Your task to perform on an android device: Turn off the flashlight Image 0: 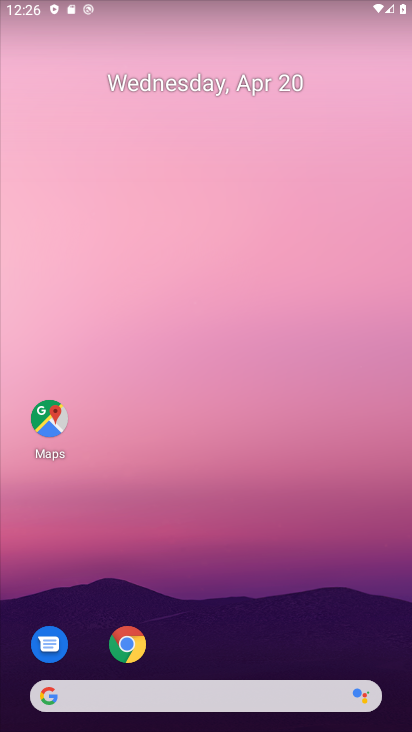
Step 0: drag from (316, 649) to (172, 4)
Your task to perform on an android device: Turn off the flashlight Image 1: 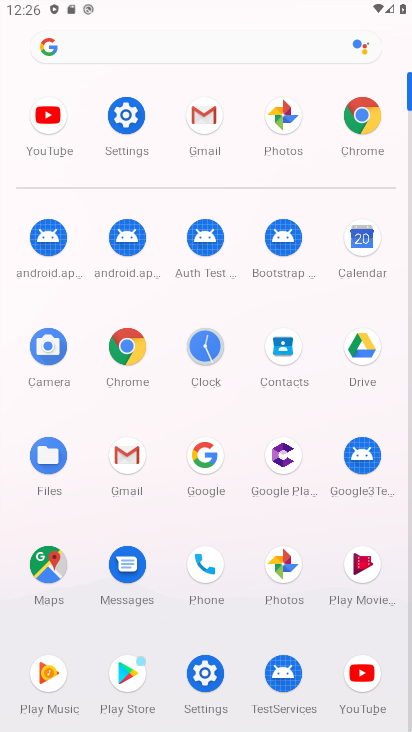
Step 1: click (130, 117)
Your task to perform on an android device: Turn off the flashlight Image 2: 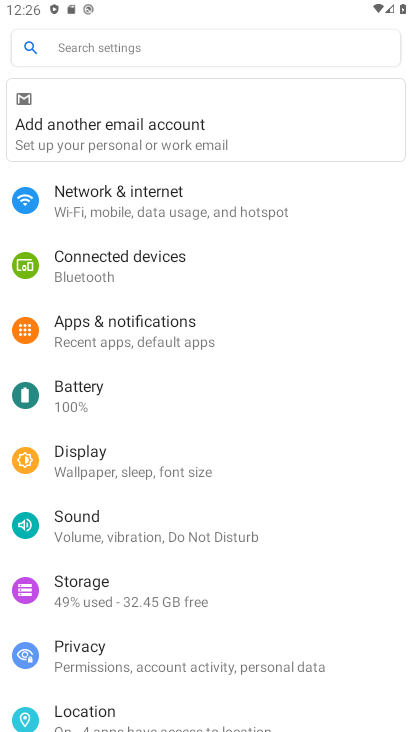
Step 2: click (179, 44)
Your task to perform on an android device: Turn off the flashlight Image 3: 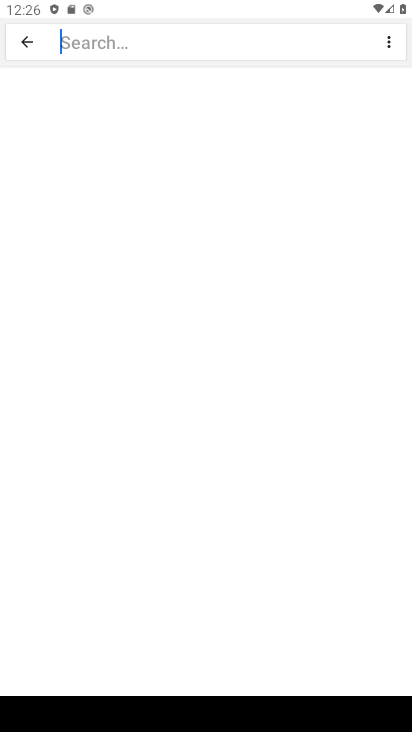
Step 3: type "flashlight"
Your task to perform on an android device: Turn off the flashlight Image 4: 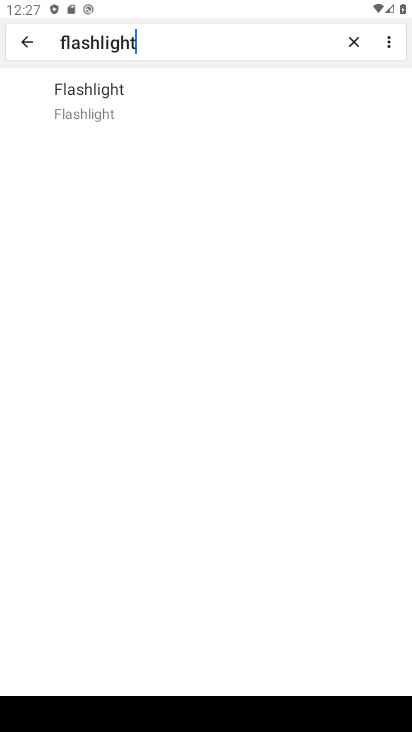
Step 4: click (131, 101)
Your task to perform on an android device: Turn off the flashlight Image 5: 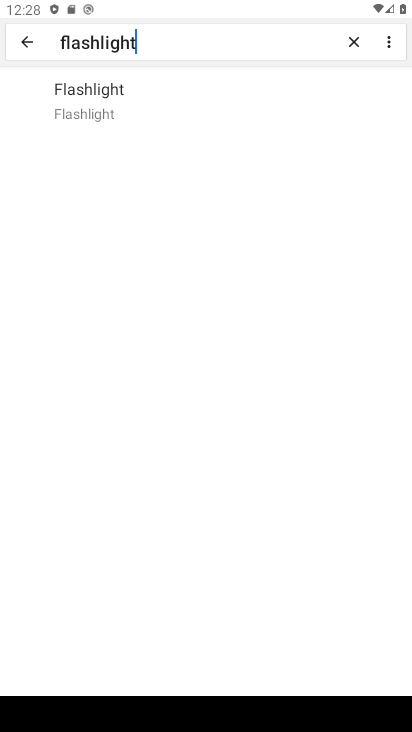
Step 5: task complete